Your task to perform on an android device: Open calendar and show me the third week of next month Image 0: 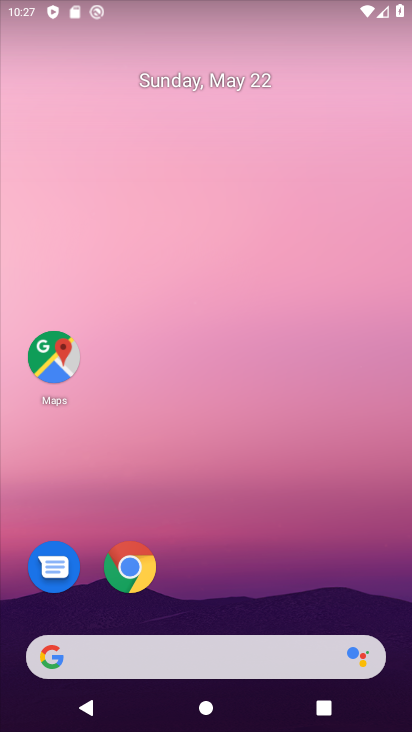
Step 0: drag from (396, 607) to (337, 55)
Your task to perform on an android device: Open calendar and show me the third week of next month Image 1: 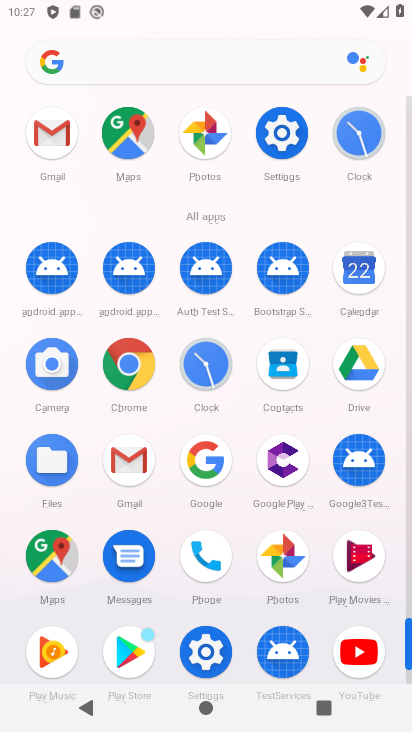
Step 1: click (410, 677)
Your task to perform on an android device: Open calendar and show me the third week of next month Image 2: 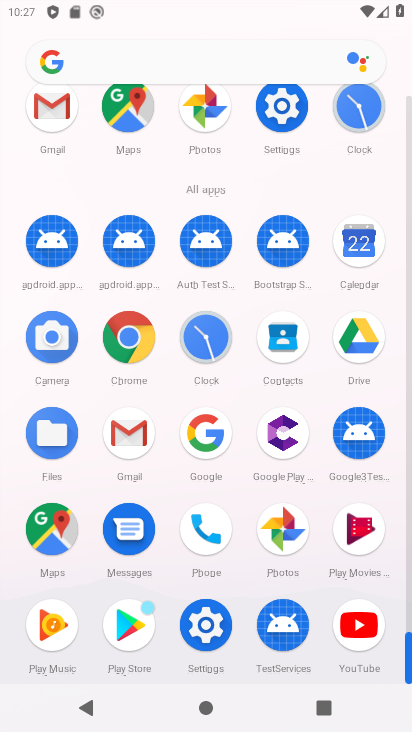
Step 2: click (355, 243)
Your task to perform on an android device: Open calendar and show me the third week of next month Image 3: 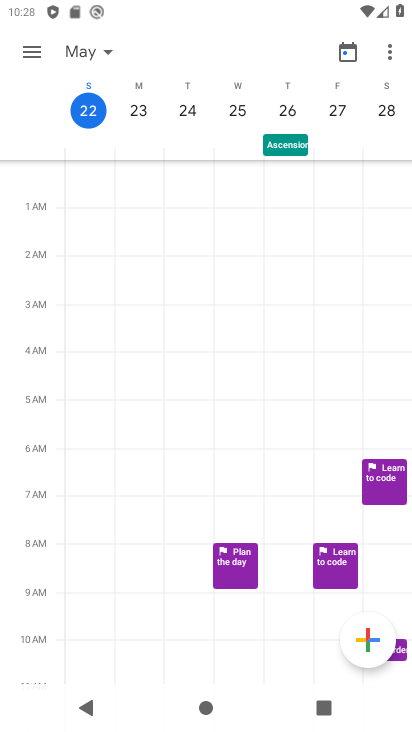
Step 3: click (105, 52)
Your task to perform on an android device: Open calendar and show me the third week of next month Image 4: 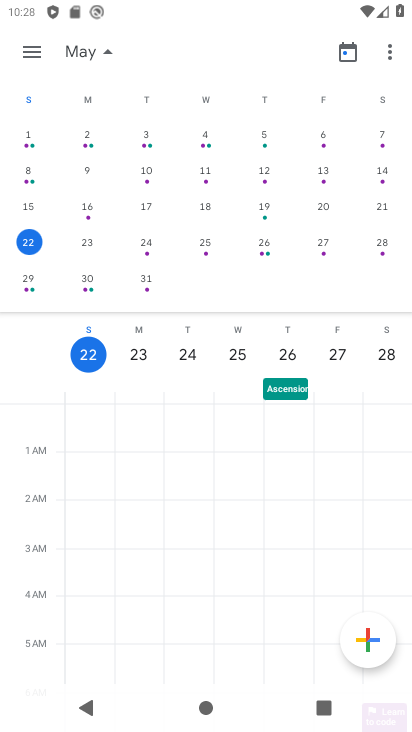
Step 4: drag from (365, 195) to (28, 221)
Your task to perform on an android device: Open calendar and show me the third week of next month Image 5: 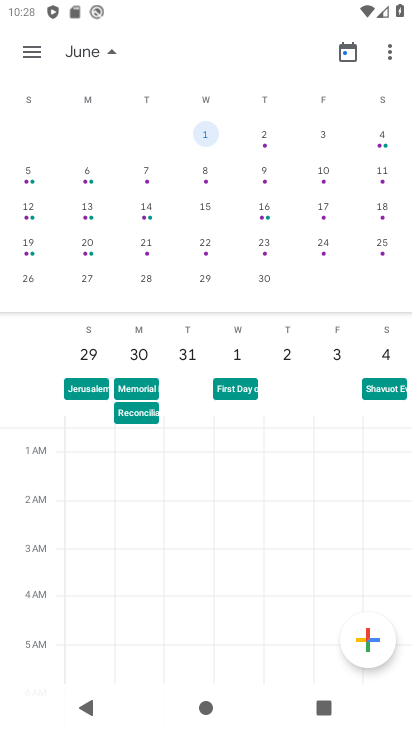
Step 5: click (24, 212)
Your task to perform on an android device: Open calendar and show me the third week of next month Image 6: 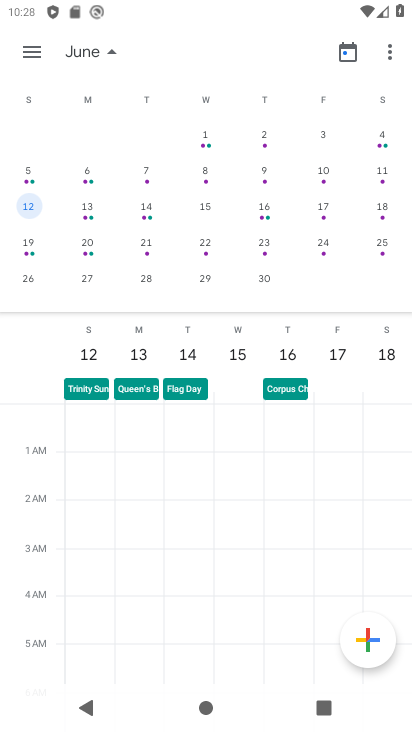
Step 6: task complete